Your task to perform on an android device: Search for Italian restaurants on Maps Image 0: 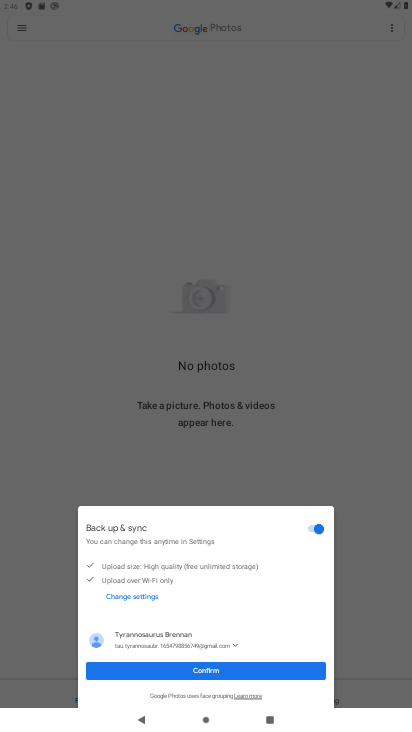
Step 0: press home button
Your task to perform on an android device: Search for Italian restaurants on Maps Image 1: 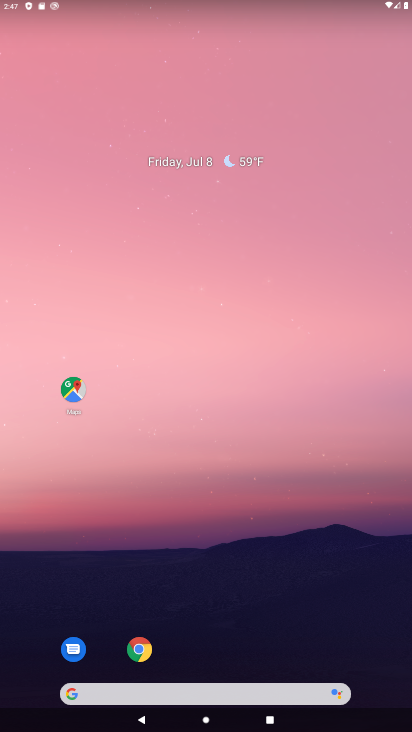
Step 1: drag from (247, 534) to (255, 95)
Your task to perform on an android device: Search for Italian restaurants on Maps Image 2: 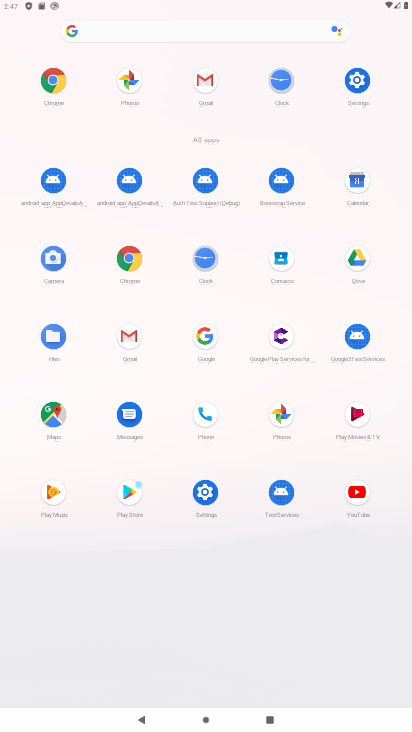
Step 2: click (55, 419)
Your task to perform on an android device: Search for Italian restaurants on Maps Image 3: 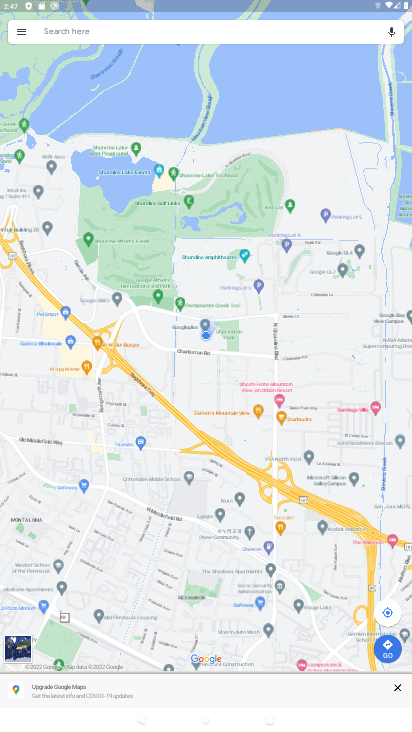
Step 3: click (173, 31)
Your task to perform on an android device: Search for Italian restaurants on Maps Image 4: 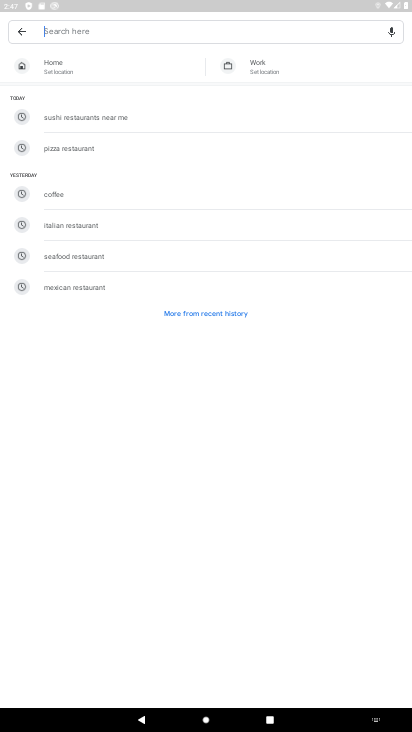
Step 4: type "Italian restaurants"
Your task to perform on an android device: Search for Italian restaurants on Maps Image 5: 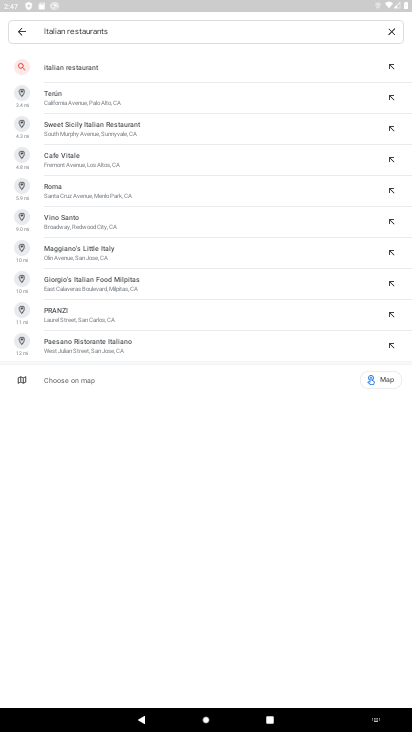
Step 5: press enter
Your task to perform on an android device: Search for Italian restaurants on Maps Image 6: 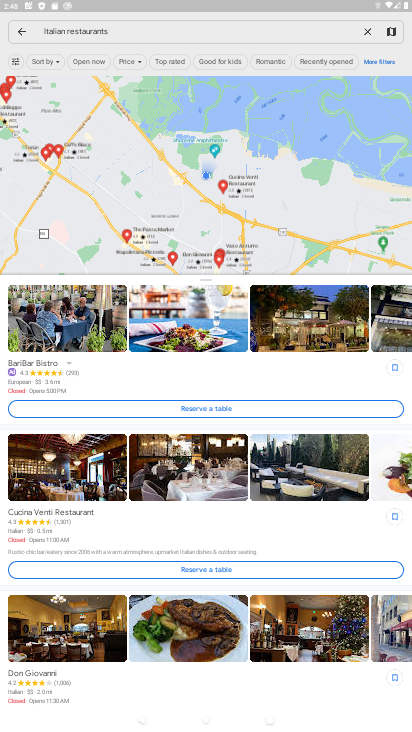
Step 6: task complete